Your task to perform on an android device: Open battery settings Image 0: 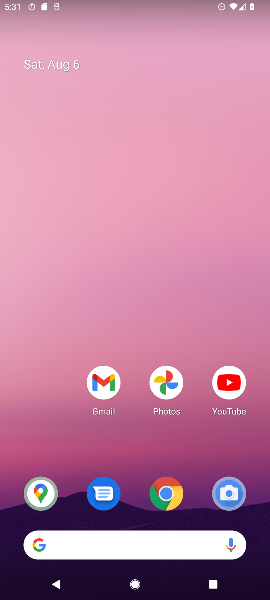
Step 0: drag from (196, 562) to (123, 71)
Your task to perform on an android device: Open battery settings Image 1: 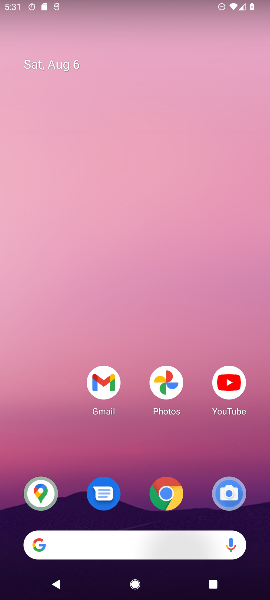
Step 1: drag from (160, 460) to (68, 4)
Your task to perform on an android device: Open battery settings Image 2: 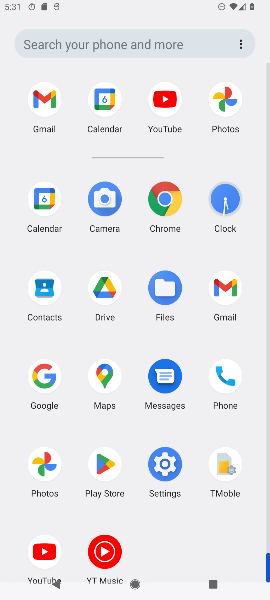
Step 2: drag from (131, 280) to (94, 36)
Your task to perform on an android device: Open battery settings Image 3: 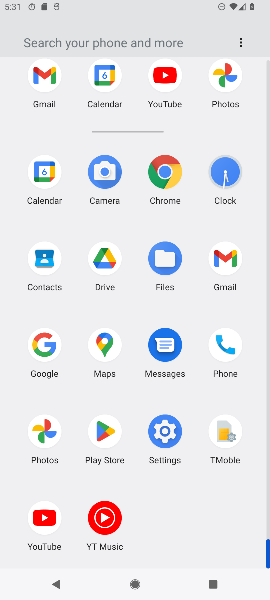
Step 3: click (164, 433)
Your task to perform on an android device: Open battery settings Image 4: 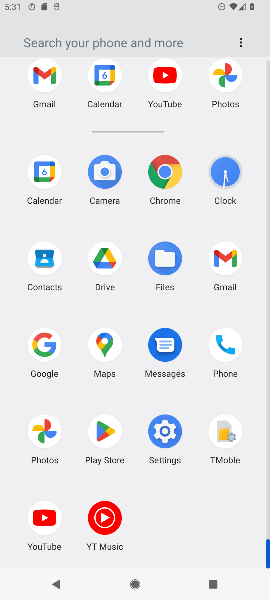
Step 4: click (164, 433)
Your task to perform on an android device: Open battery settings Image 5: 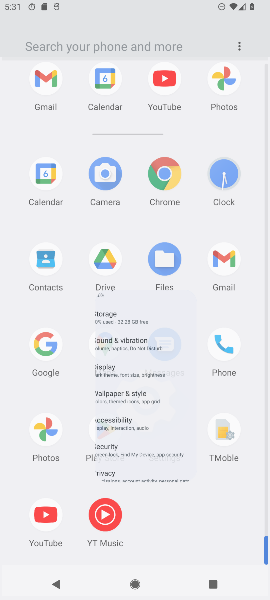
Step 5: click (164, 433)
Your task to perform on an android device: Open battery settings Image 6: 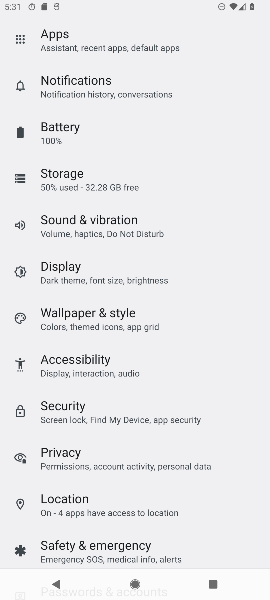
Step 6: click (164, 433)
Your task to perform on an android device: Open battery settings Image 7: 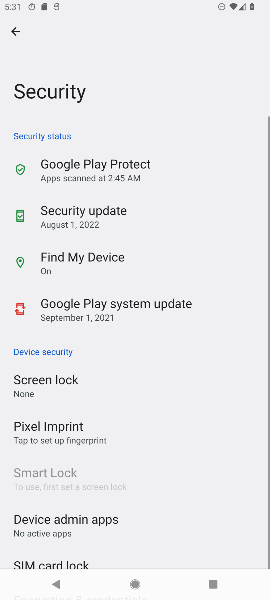
Step 7: click (15, 26)
Your task to perform on an android device: Open battery settings Image 8: 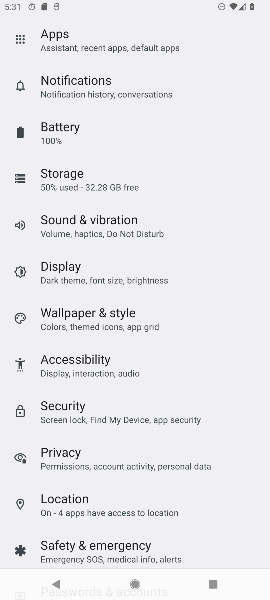
Step 8: drag from (90, 195) to (89, 348)
Your task to perform on an android device: Open battery settings Image 9: 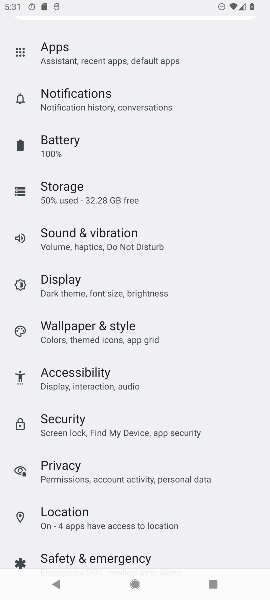
Step 9: drag from (96, 151) to (109, 393)
Your task to perform on an android device: Open battery settings Image 10: 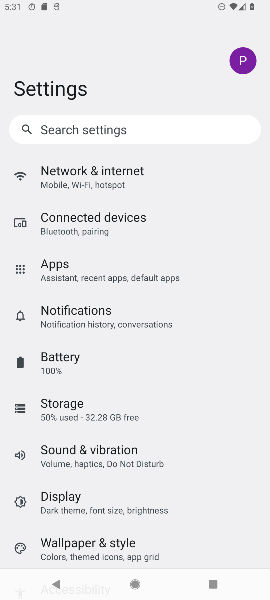
Step 10: click (61, 356)
Your task to perform on an android device: Open battery settings Image 11: 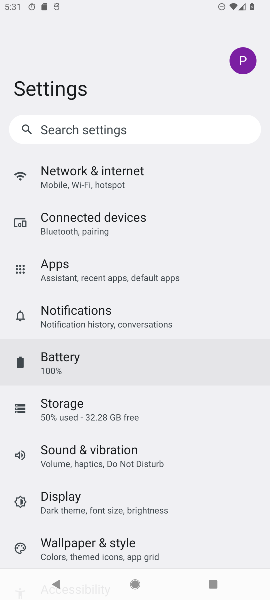
Step 11: click (62, 366)
Your task to perform on an android device: Open battery settings Image 12: 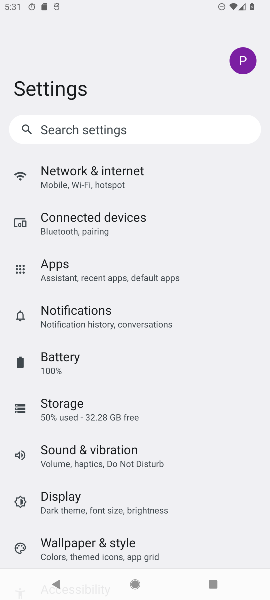
Step 12: click (62, 367)
Your task to perform on an android device: Open battery settings Image 13: 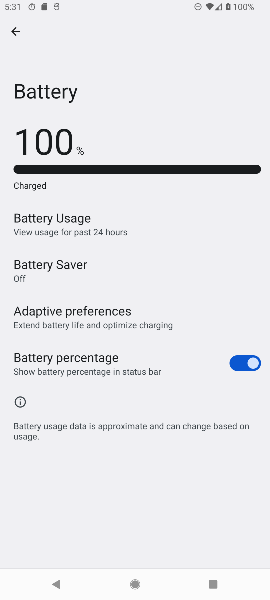
Step 13: task complete